Your task to perform on an android device: Go to Amazon Image 0: 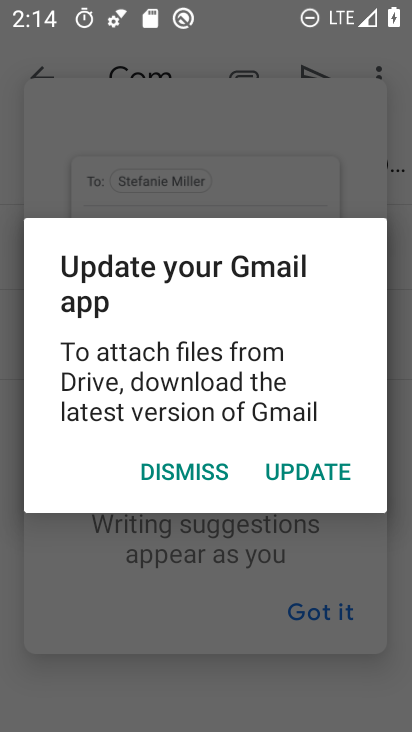
Step 0: press home button
Your task to perform on an android device: Go to Amazon Image 1: 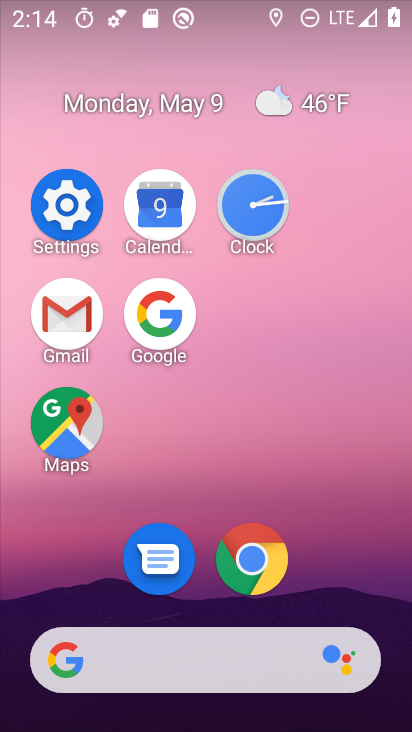
Step 1: click (275, 551)
Your task to perform on an android device: Go to Amazon Image 2: 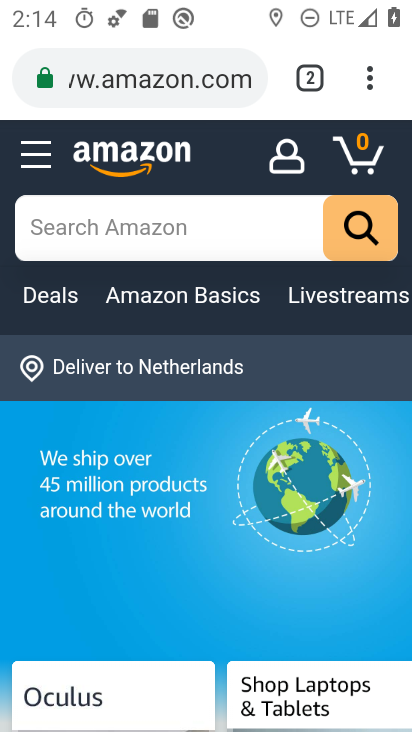
Step 2: task complete